Your task to perform on an android device: Open settings Image 0: 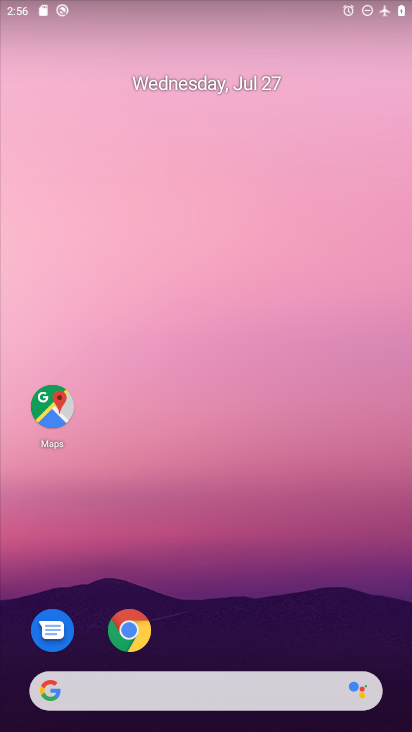
Step 0: drag from (351, 638) to (315, 36)
Your task to perform on an android device: Open settings Image 1: 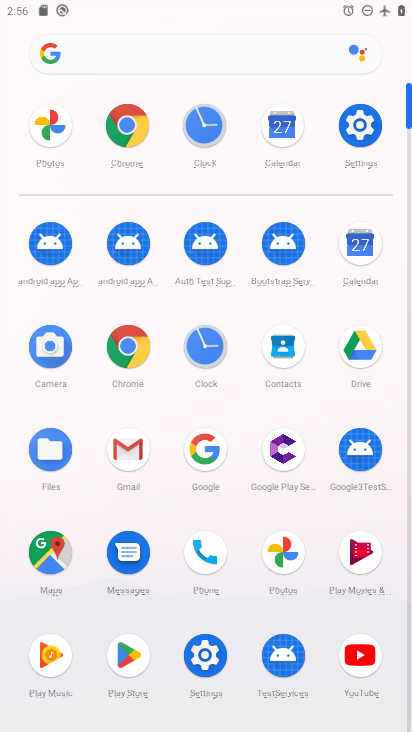
Step 1: click (205, 652)
Your task to perform on an android device: Open settings Image 2: 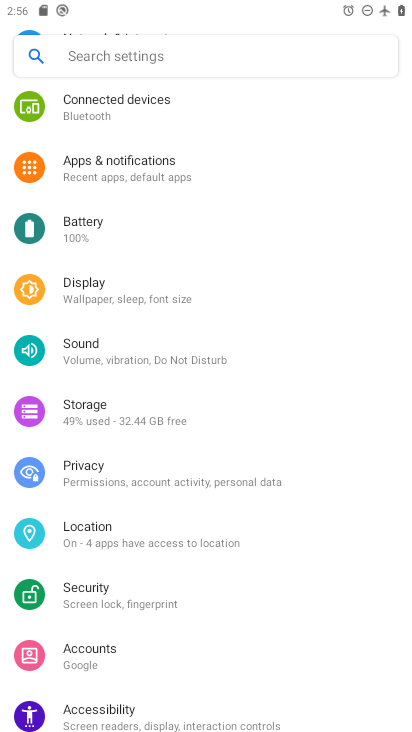
Step 2: task complete